Your task to perform on an android device: Go to Amazon Image 0: 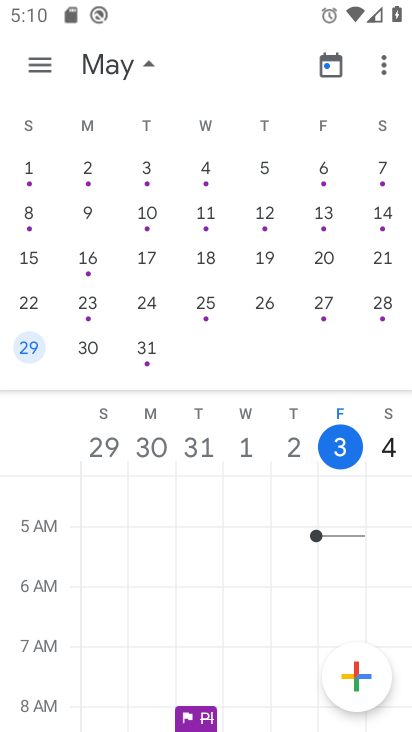
Step 0: press home button
Your task to perform on an android device: Go to Amazon Image 1: 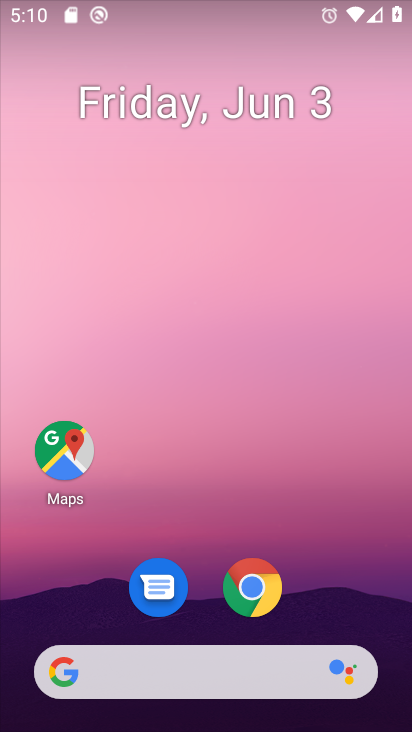
Step 1: click (253, 593)
Your task to perform on an android device: Go to Amazon Image 2: 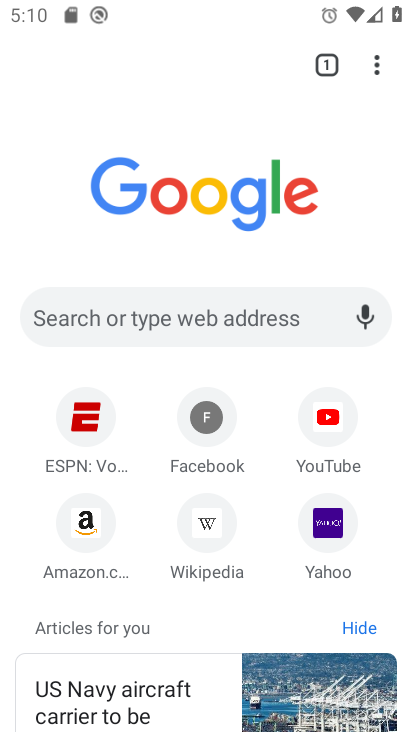
Step 2: click (96, 531)
Your task to perform on an android device: Go to Amazon Image 3: 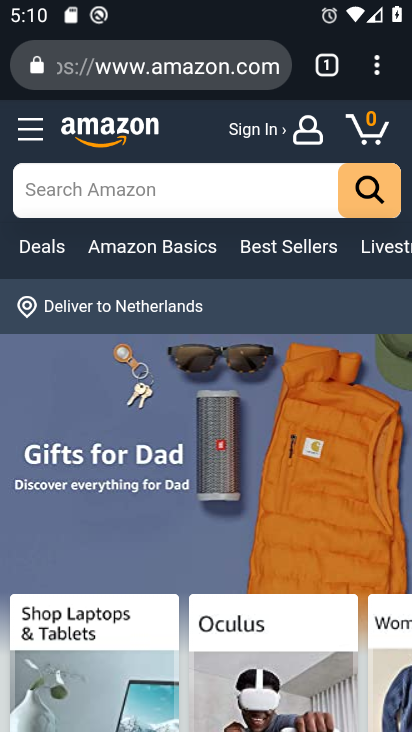
Step 3: task complete